Your task to perform on an android device: Play the last video I watched on Youtube Image 0: 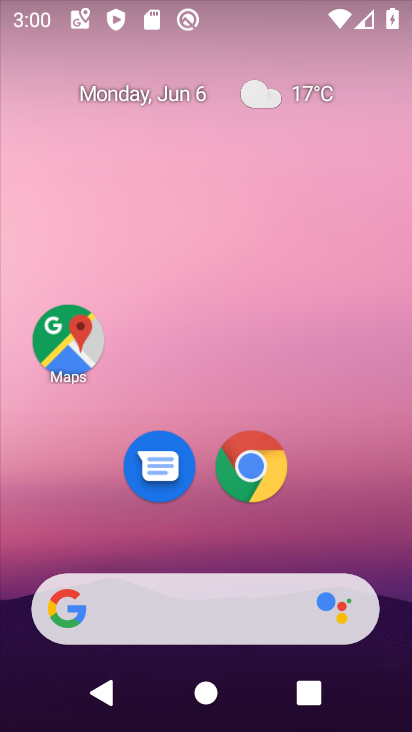
Step 0: drag from (333, 535) to (259, 6)
Your task to perform on an android device: Play the last video I watched on Youtube Image 1: 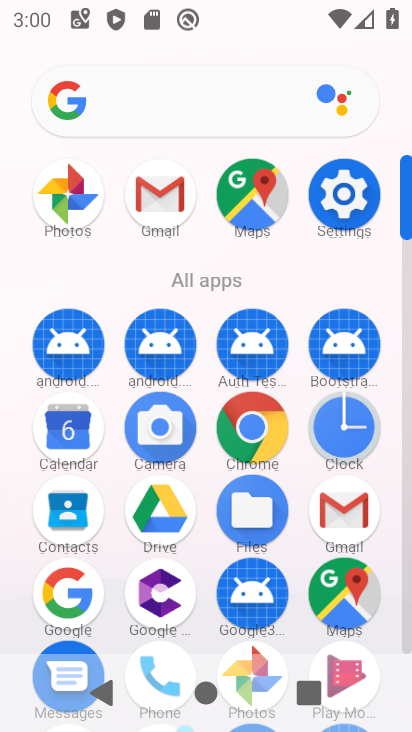
Step 1: drag from (237, 558) to (289, 38)
Your task to perform on an android device: Play the last video I watched on Youtube Image 2: 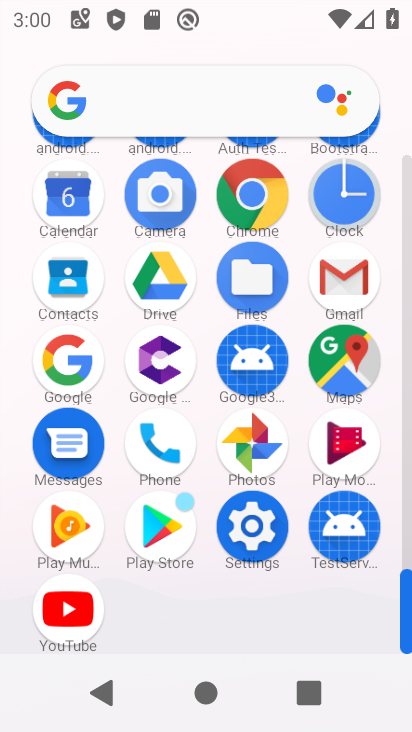
Step 2: click (64, 613)
Your task to perform on an android device: Play the last video I watched on Youtube Image 3: 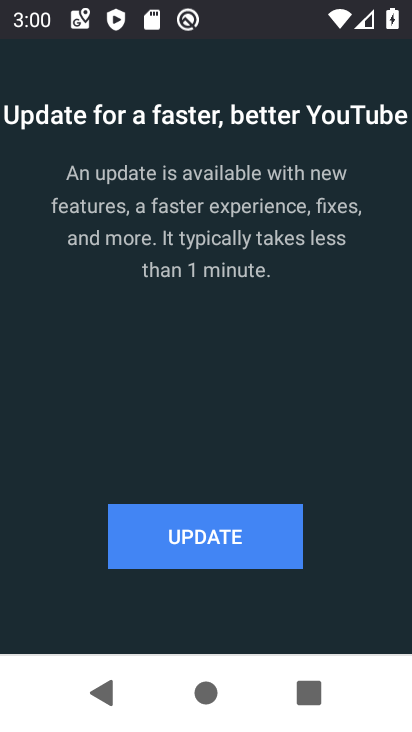
Step 3: click (212, 517)
Your task to perform on an android device: Play the last video I watched on Youtube Image 4: 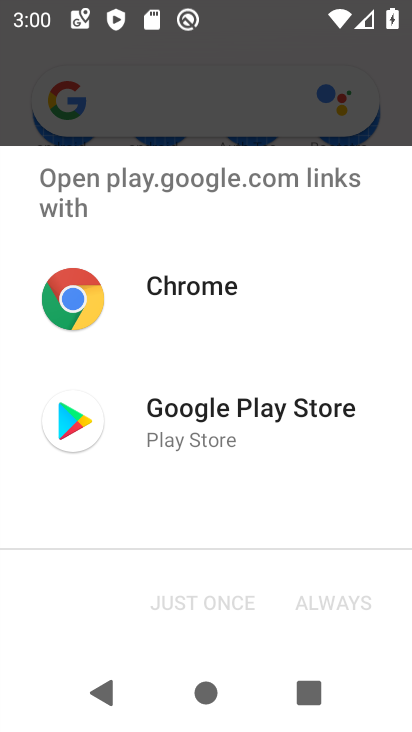
Step 4: press home button
Your task to perform on an android device: Play the last video I watched on Youtube Image 5: 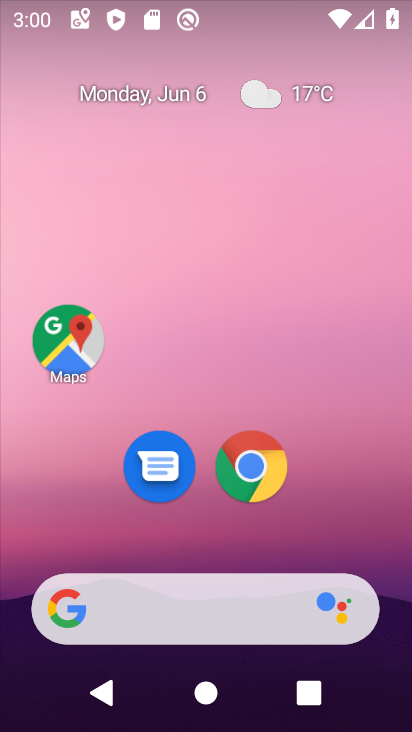
Step 5: drag from (315, 544) to (206, 59)
Your task to perform on an android device: Play the last video I watched on Youtube Image 6: 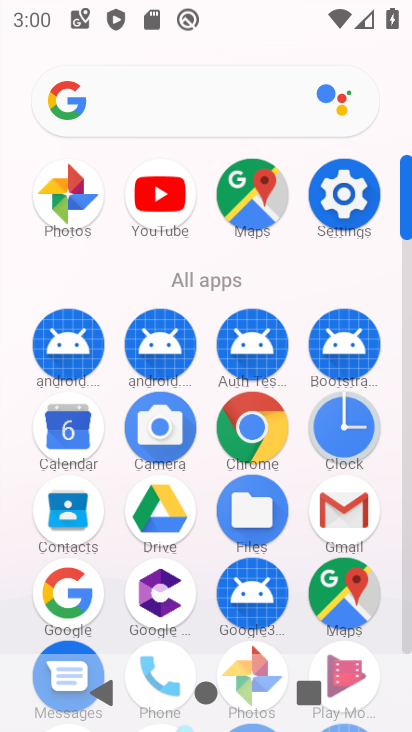
Step 6: click (159, 193)
Your task to perform on an android device: Play the last video I watched on Youtube Image 7: 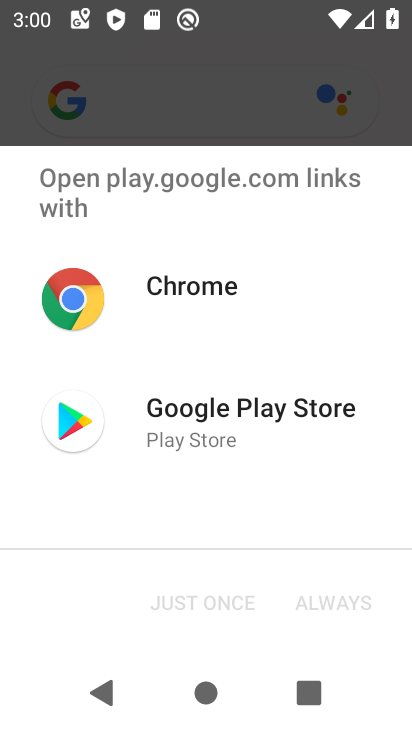
Step 7: click (170, 422)
Your task to perform on an android device: Play the last video I watched on Youtube Image 8: 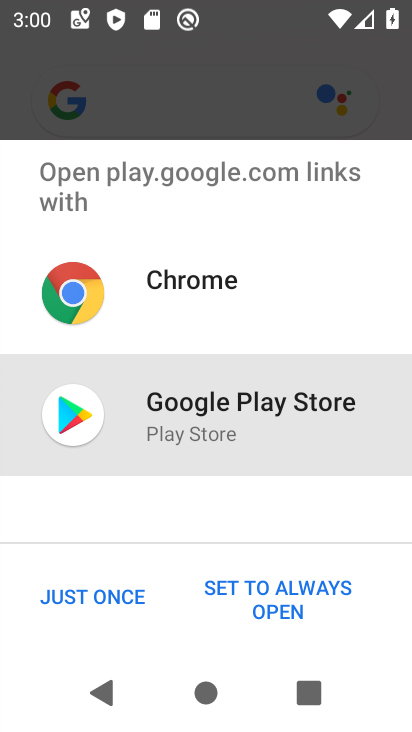
Step 8: click (67, 587)
Your task to perform on an android device: Play the last video I watched on Youtube Image 9: 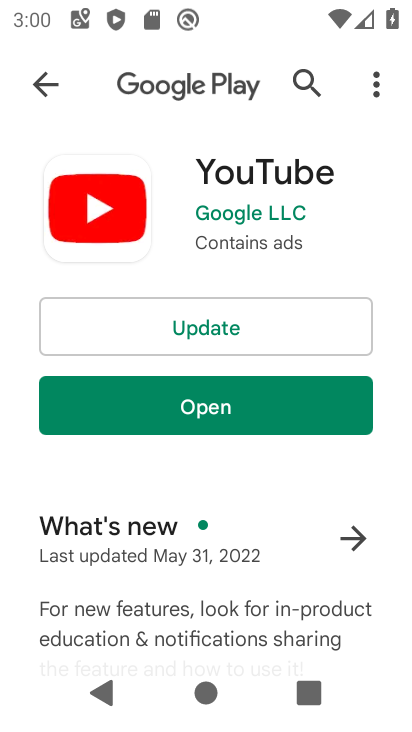
Step 9: click (287, 324)
Your task to perform on an android device: Play the last video I watched on Youtube Image 10: 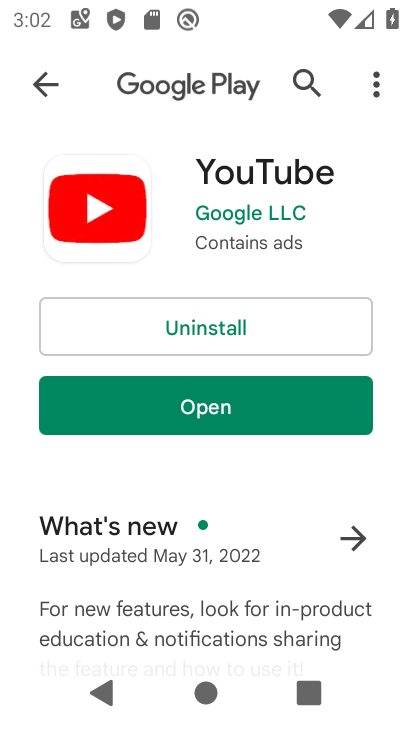
Step 10: click (271, 401)
Your task to perform on an android device: Play the last video I watched on Youtube Image 11: 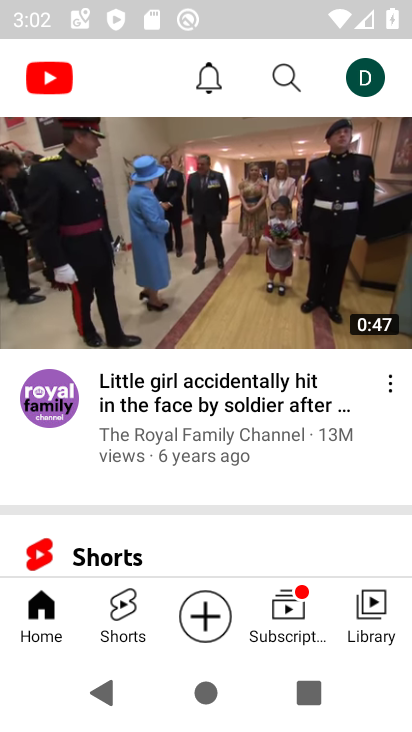
Step 11: click (374, 628)
Your task to perform on an android device: Play the last video I watched on Youtube Image 12: 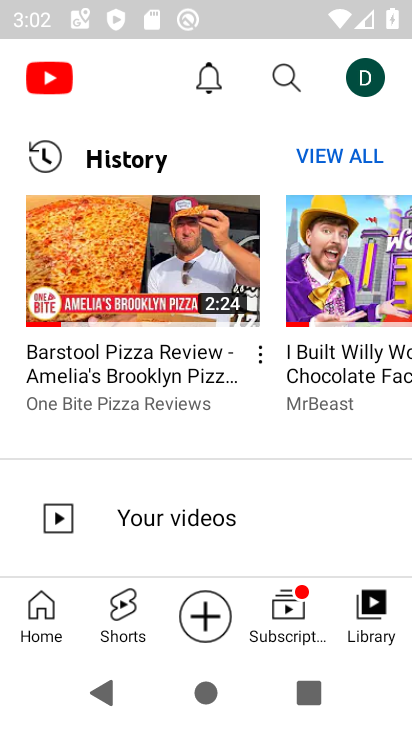
Step 12: click (126, 268)
Your task to perform on an android device: Play the last video I watched on Youtube Image 13: 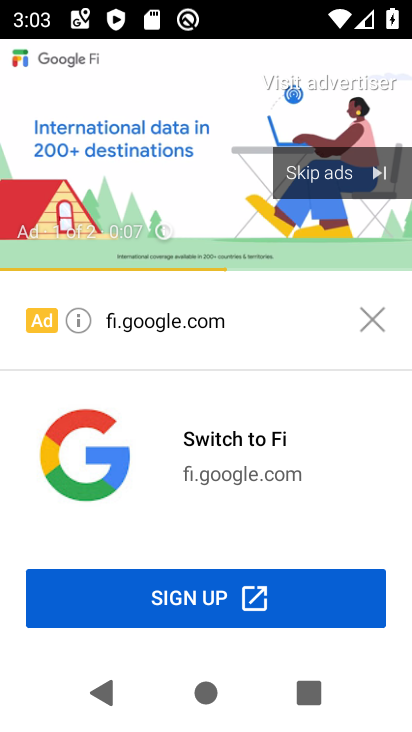
Step 13: click (327, 161)
Your task to perform on an android device: Play the last video I watched on Youtube Image 14: 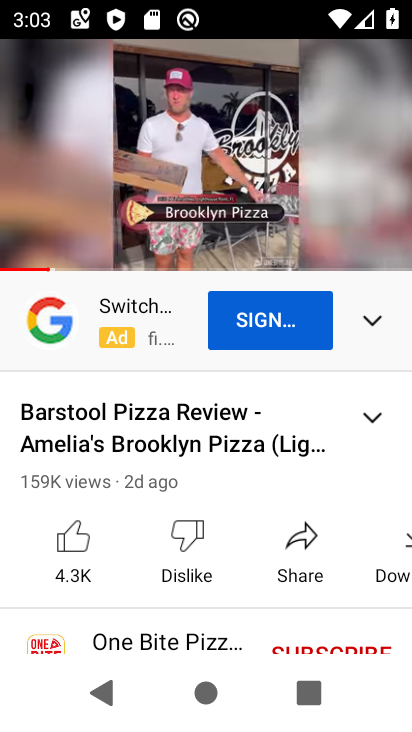
Step 14: task complete